Your task to perform on an android device: turn vacation reply on in the gmail app Image 0: 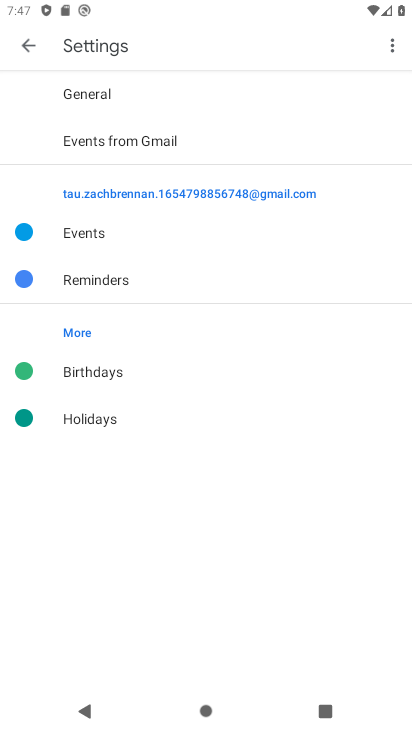
Step 0: click (35, 49)
Your task to perform on an android device: turn vacation reply on in the gmail app Image 1: 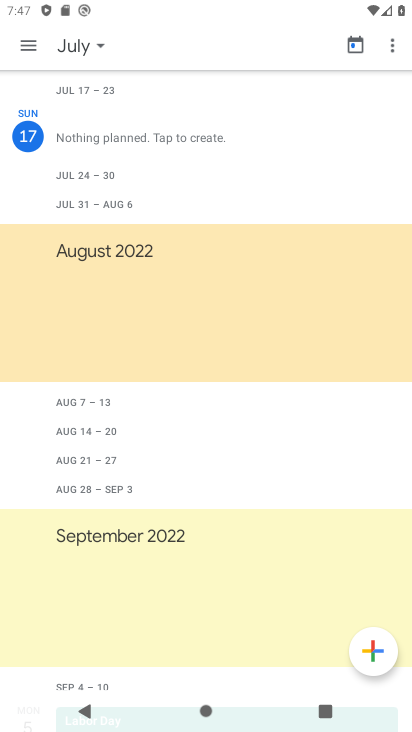
Step 1: click (35, 49)
Your task to perform on an android device: turn vacation reply on in the gmail app Image 2: 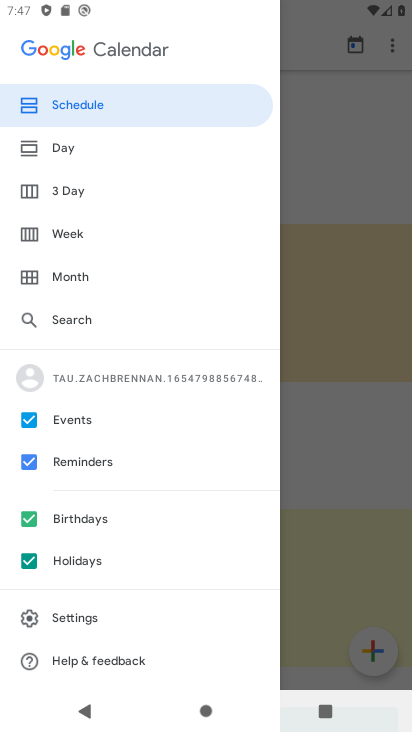
Step 2: press home button
Your task to perform on an android device: turn vacation reply on in the gmail app Image 3: 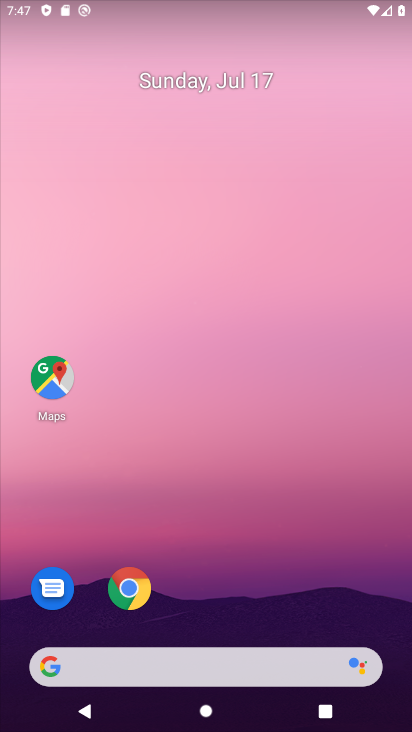
Step 3: drag from (230, 634) to (209, 76)
Your task to perform on an android device: turn vacation reply on in the gmail app Image 4: 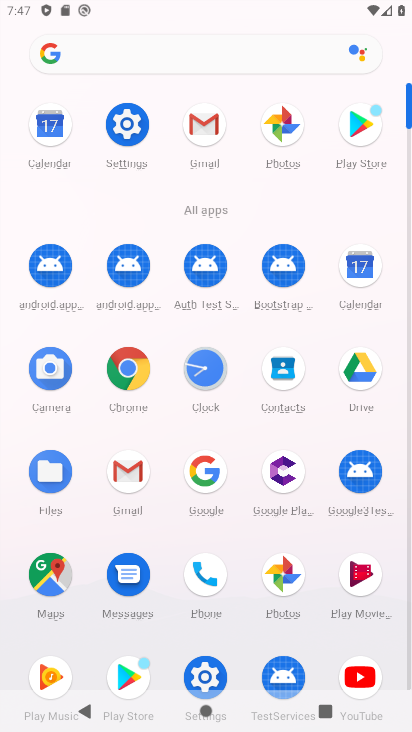
Step 4: click (139, 122)
Your task to perform on an android device: turn vacation reply on in the gmail app Image 5: 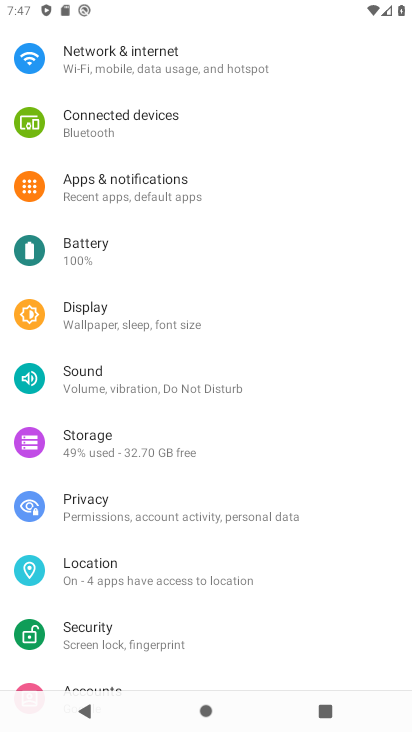
Step 5: press home button
Your task to perform on an android device: turn vacation reply on in the gmail app Image 6: 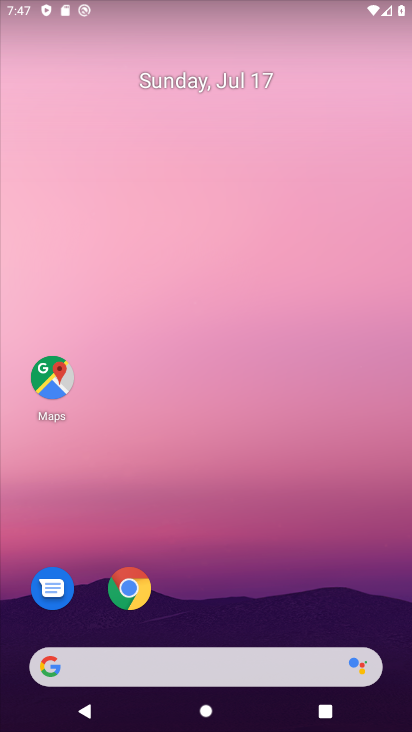
Step 6: drag from (219, 586) to (203, 105)
Your task to perform on an android device: turn vacation reply on in the gmail app Image 7: 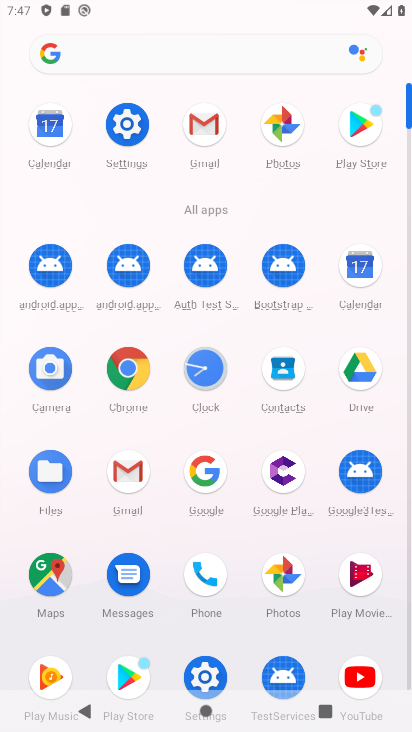
Step 7: click (202, 139)
Your task to perform on an android device: turn vacation reply on in the gmail app Image 8: 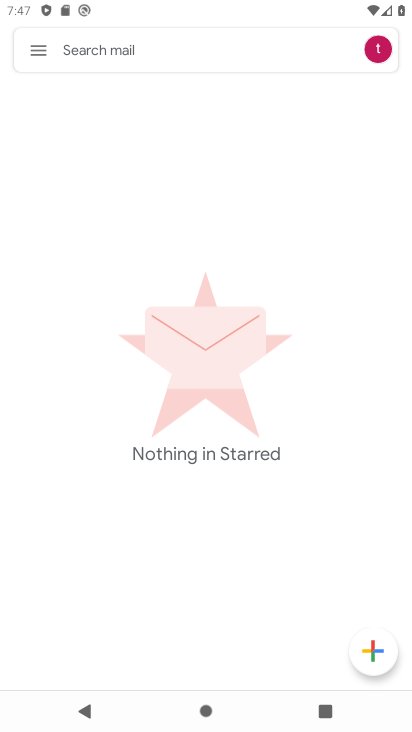
Step 8: click (29, 60)
Your task to perform on an android device: turn vacation reply on in the gmail app Image 9: 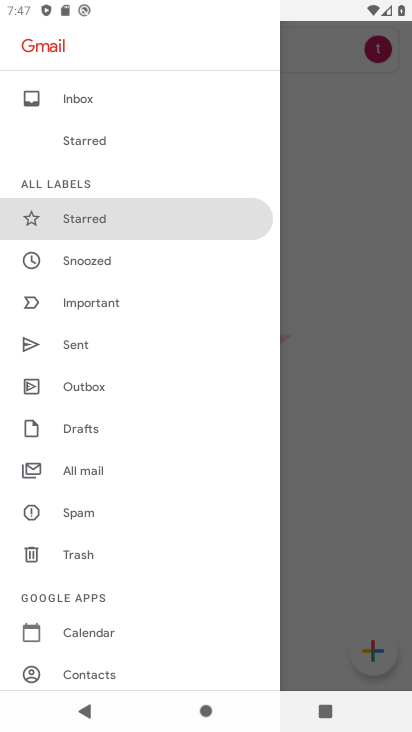
Step 9: drag from (74, 595) to (76, 312)
Your task to perform on an android device: turn vacation reply on in the gmail app Image 10: 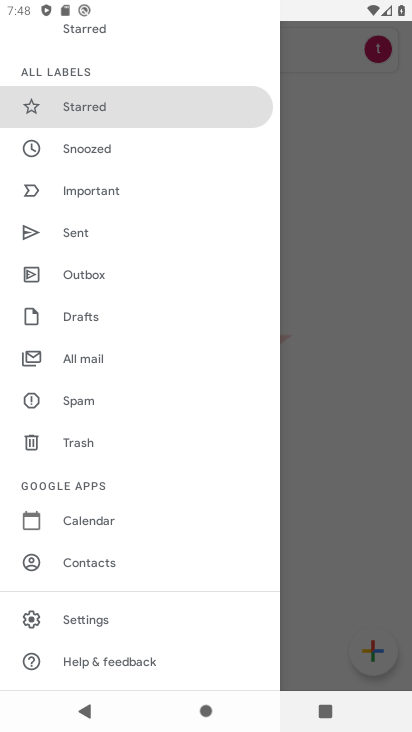
Step 10: click (64, 604)
Your task to perform on an android device: turn vacation reply on in the gmail app Image 11: 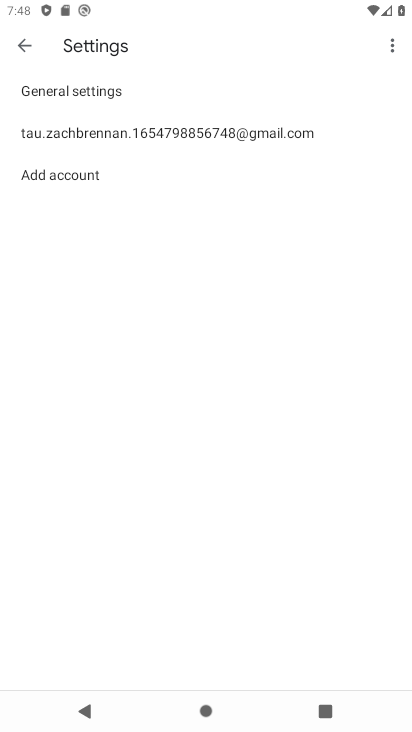
Step 11: click (99, 139)
Your task to perform on an android device: turn vacation reply on in the gmail app Image 12: 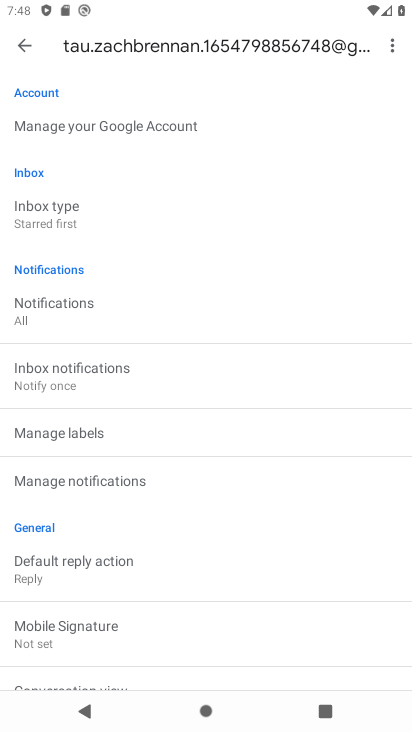
Step 12: drag from (153, 473) to (176, 287)
Your task to perform on an android device: turn vacation reply on in the gmail app Image 13: 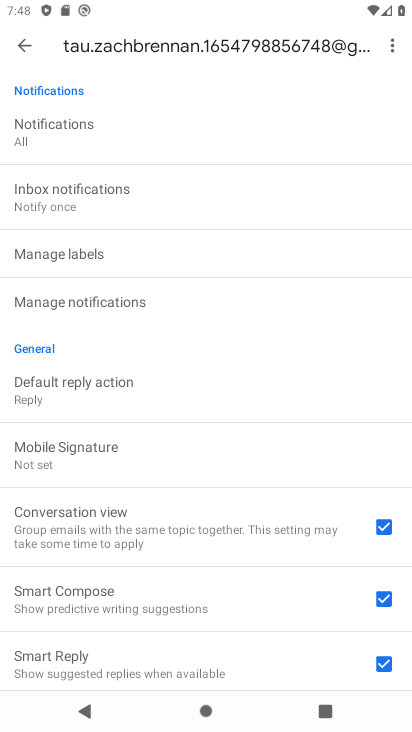
Step 13: drag from (120, 605) to (147, 293)
Your task to perform on an android device: turn vacation reply on in the gmail app Image 14: 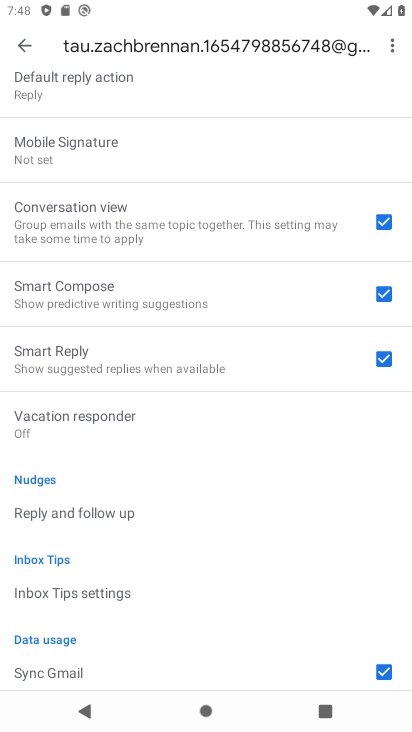
Step 14: click (148, 410)
Your task to perform on an android device: turn vacation reply on in the gmail app Image 15: 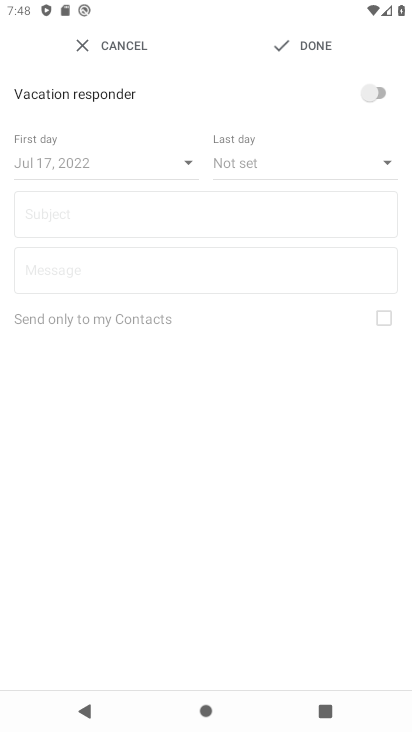
Step 15: click (323, 64)
Your task to perform on an android device: turn vacation reply on in the gmail app Image 16: 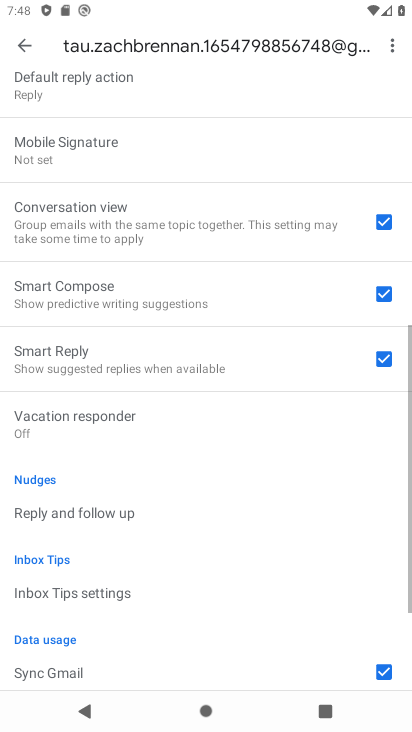
Step 16: task complete